Your task to perform on an android device: Open Maps and search for coffee Image 0: 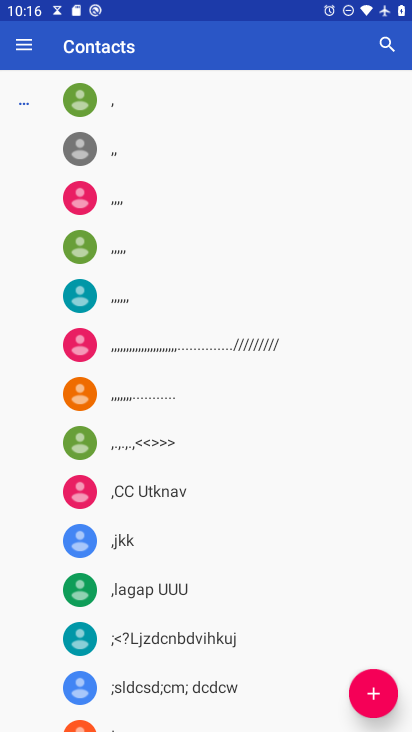
Step 0: press home button
Your task to perform on an android device: Open Maps and search for coffee Image 1: 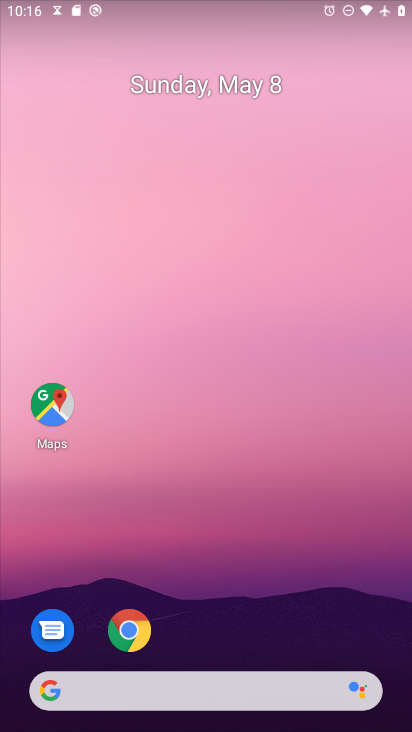
Step 1: click (47, 408)
Your task to perform on an android device: Open Maps and search for coffee Image 2: 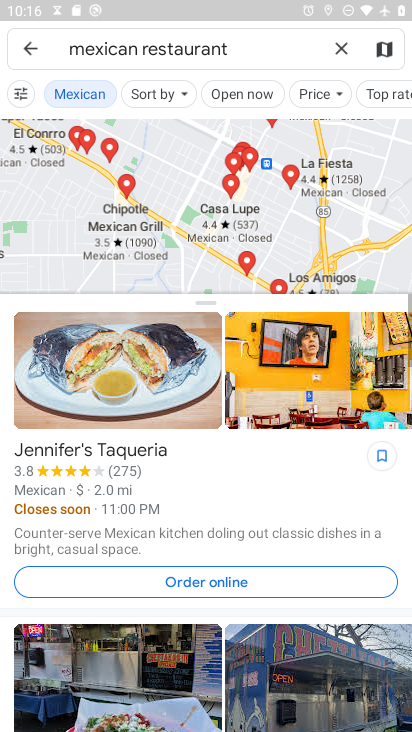
Step 2: click (339, 46)
Your task to perform on an android device: Open Maps and search for coffee Image 3: 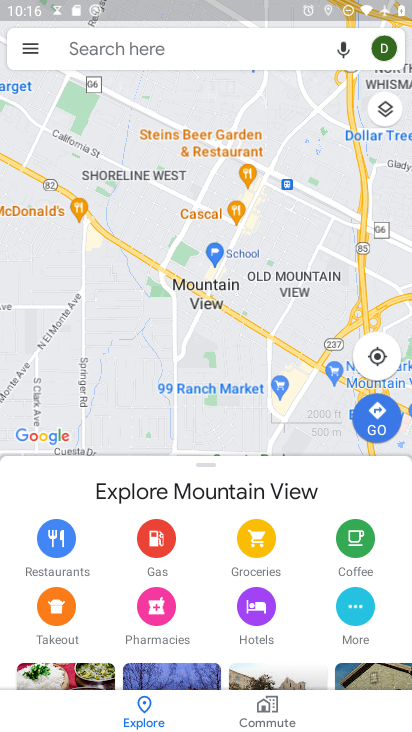
Step 3: click (203, 42)
Your task to perform on an android device: Open Maps and search for coffee Image 4: 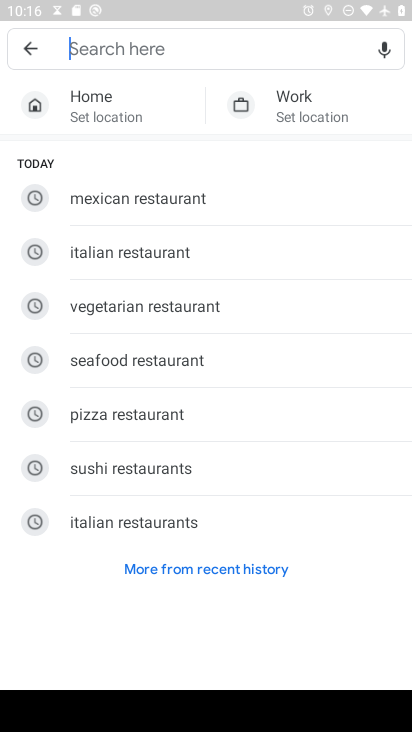
Step 4: type "coffee"
Your task to perform on an android device: Open Maps and search for coffee Image 5: 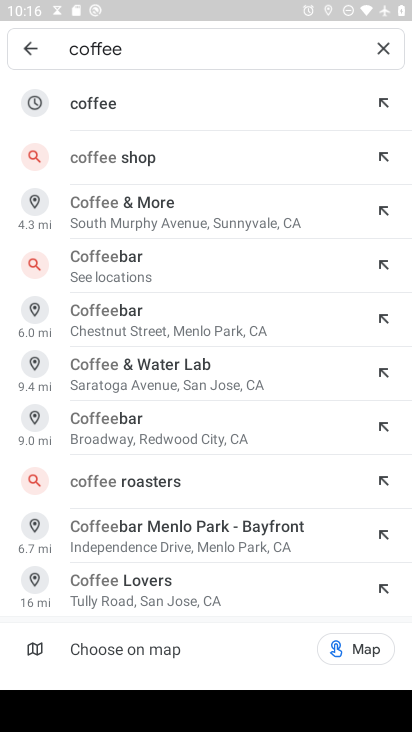
Step 5: click (120, 105)
Your task to perform on an android device: Open Maps and search for coffee Image 6: 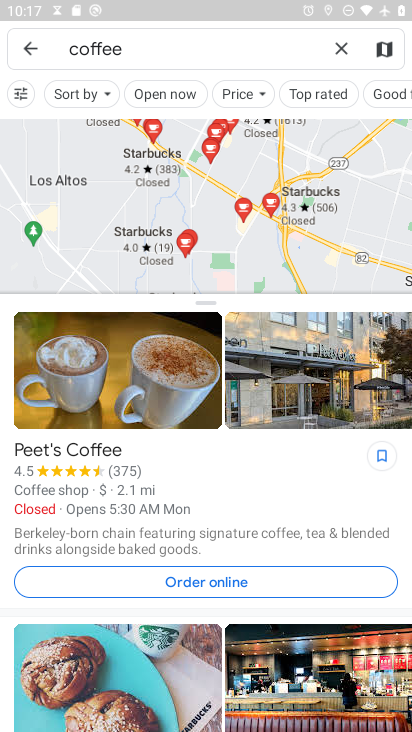
Step 6: task complete